Your task to perform on an android device: turn off smart reply in the gmail app Image 0: 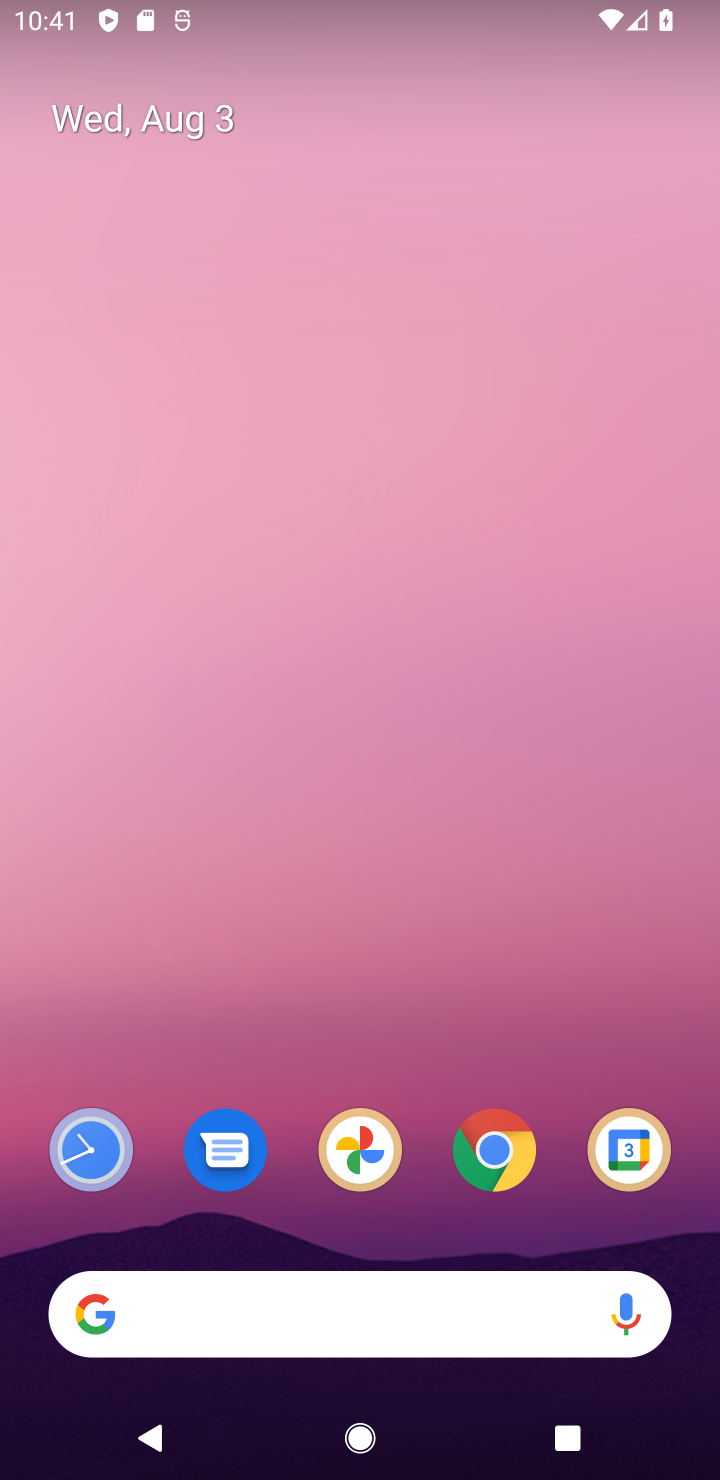
Step 0: press home button
Your task to perform on an android device: turn off smart reply in the gmail app Image 1: 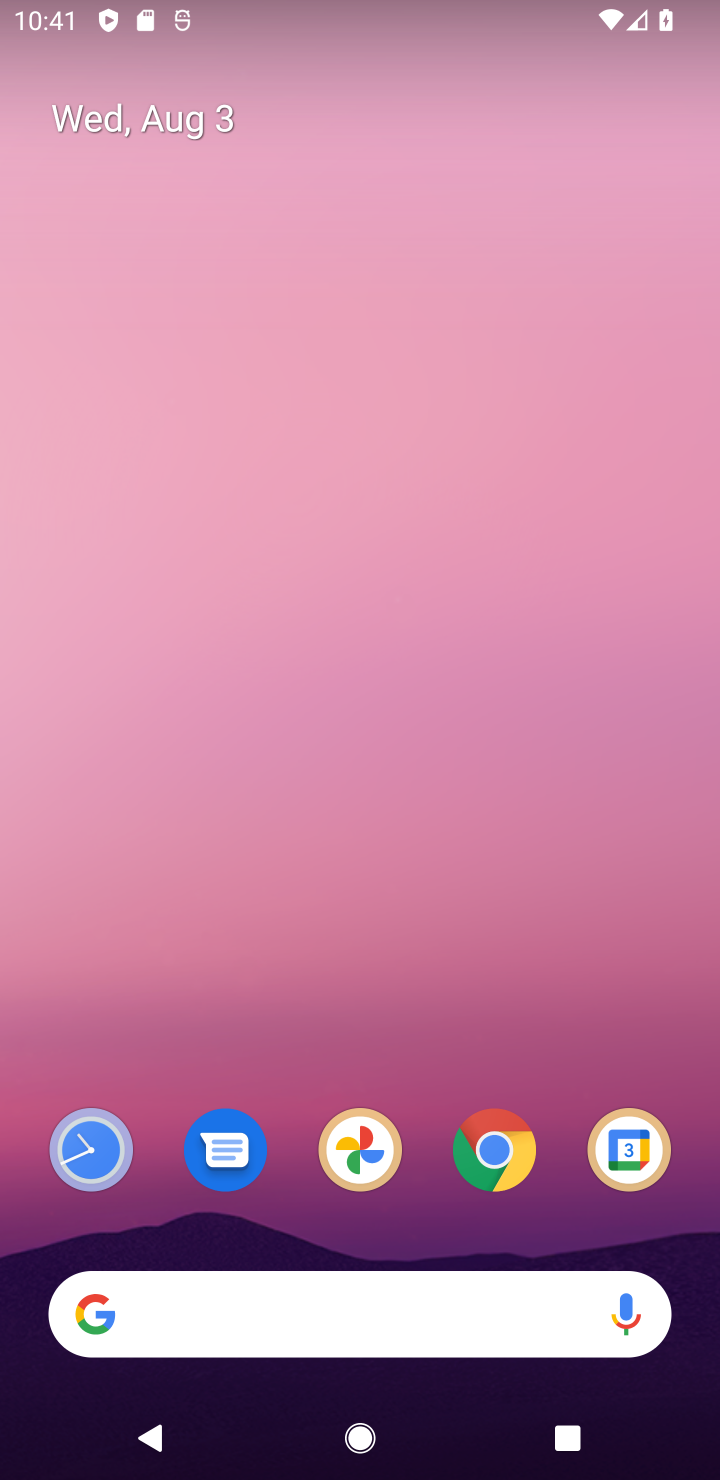
Step 1: drag from (545, 667) to (541, 252)
Your task to perform on an android device: turn off smart reply in the gmail app Image 2: 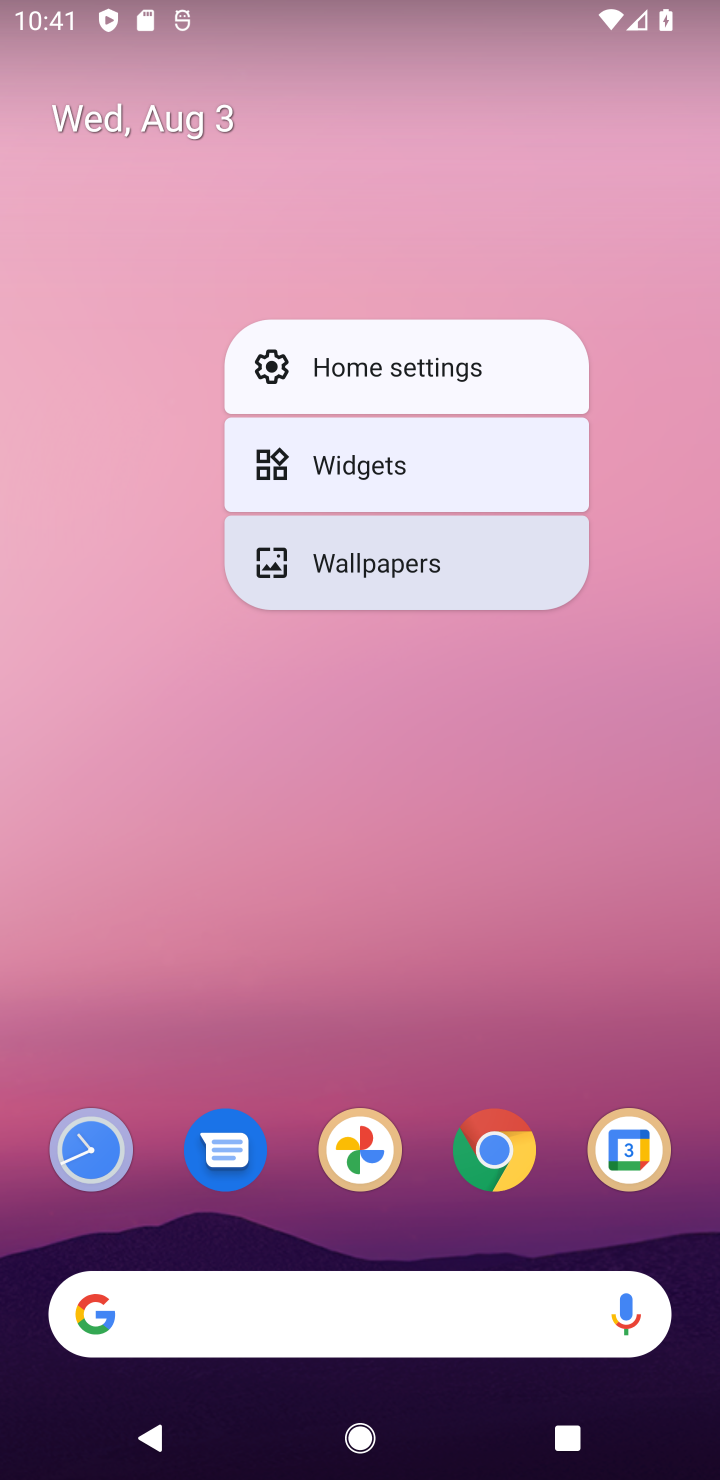
Step 2: drag from (575, 912) to (620, 266)
Your task to perform on an android device: turn off smart reply in the gmail app Image 3: 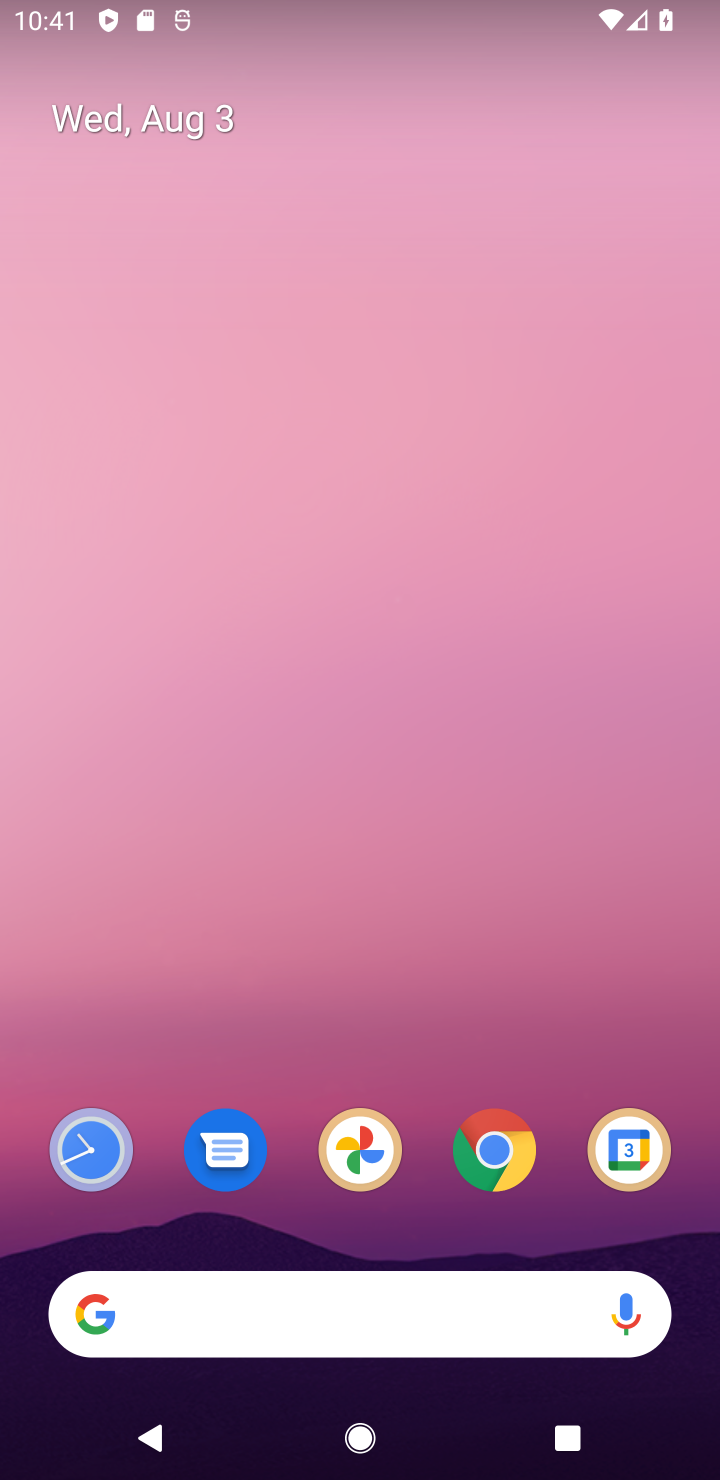
Step 3: drag from (551, 1069) to (572, 157)
Your task to perform on an android device: turn off smart reply in the gmail app Image 4: 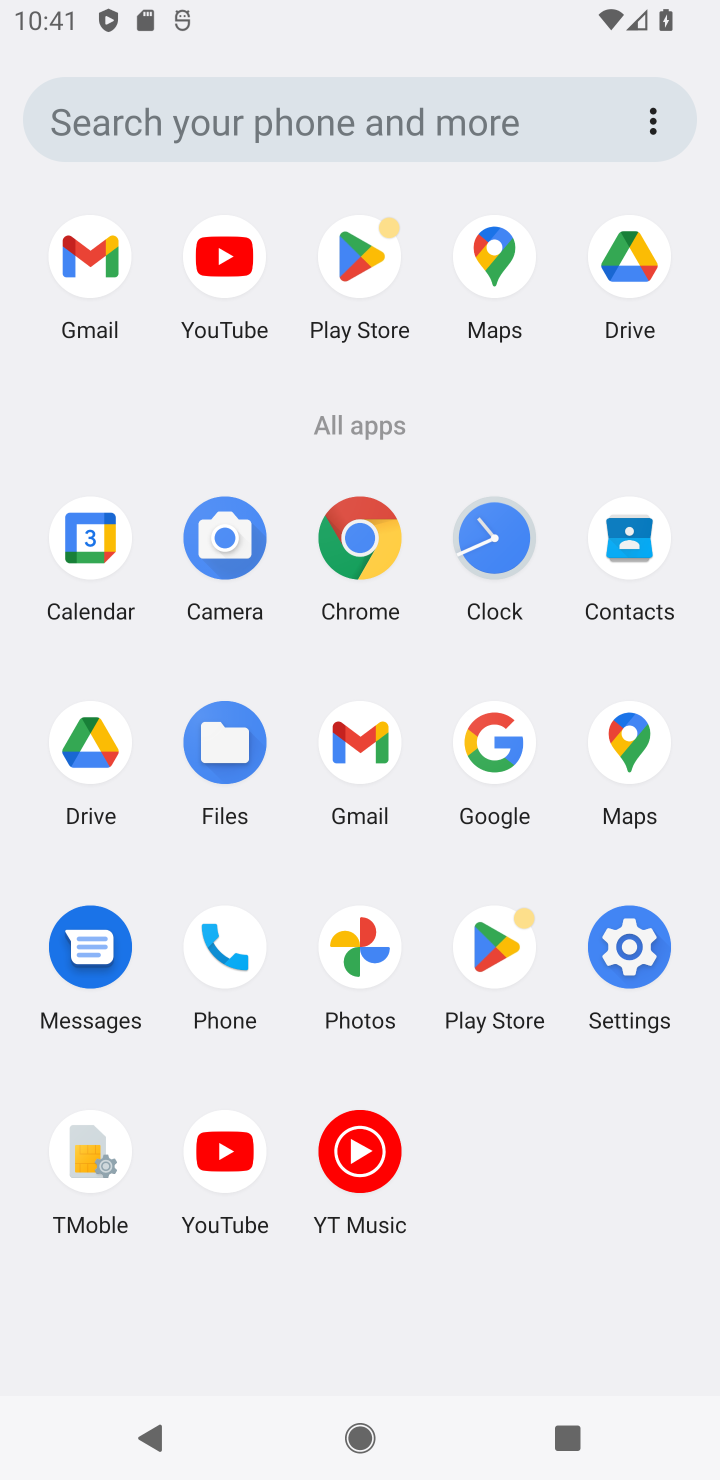
Step 4: click (350, 739)
Your task to perform on an android device: turn off smart reply in the gmail app Image 5: 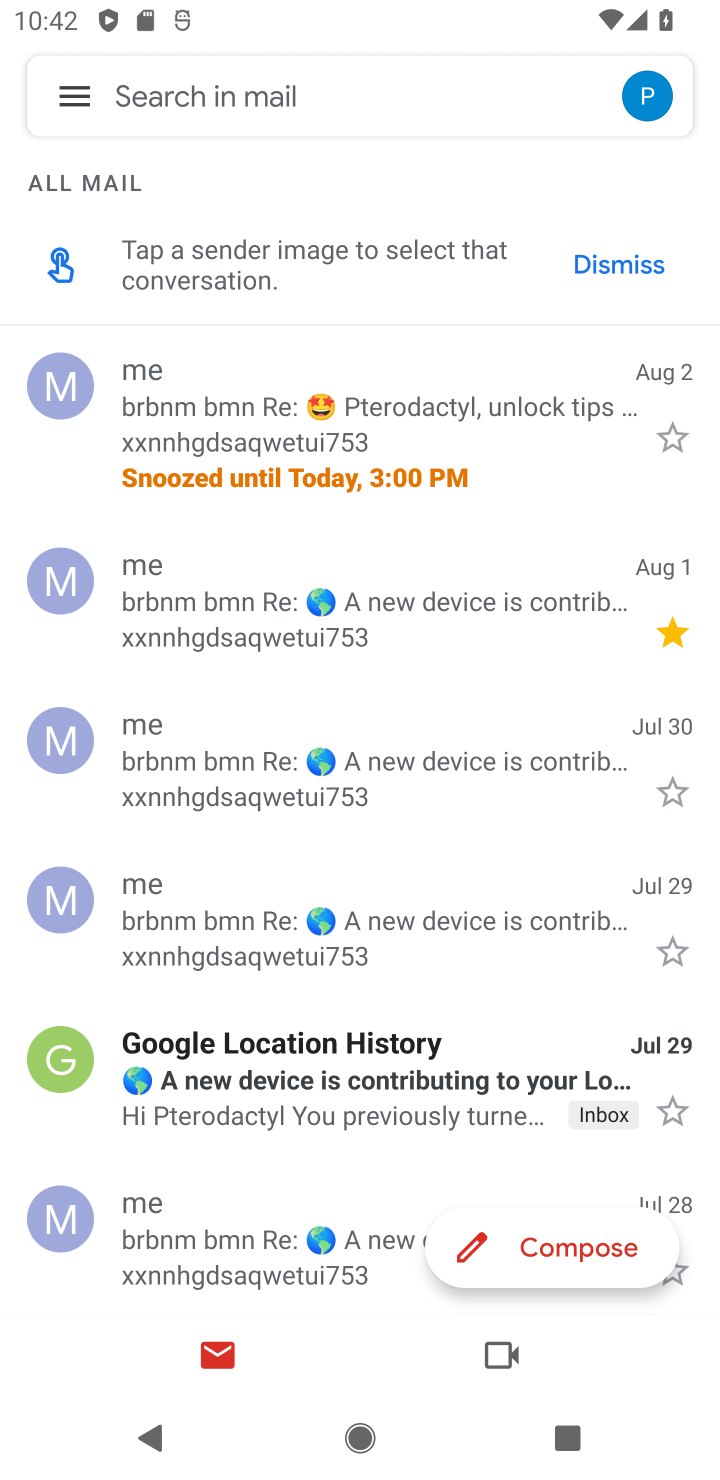
Step 5: click (76, 95)
Your task to perform on an android device: turn off smart reply in the gmail app Image 6: 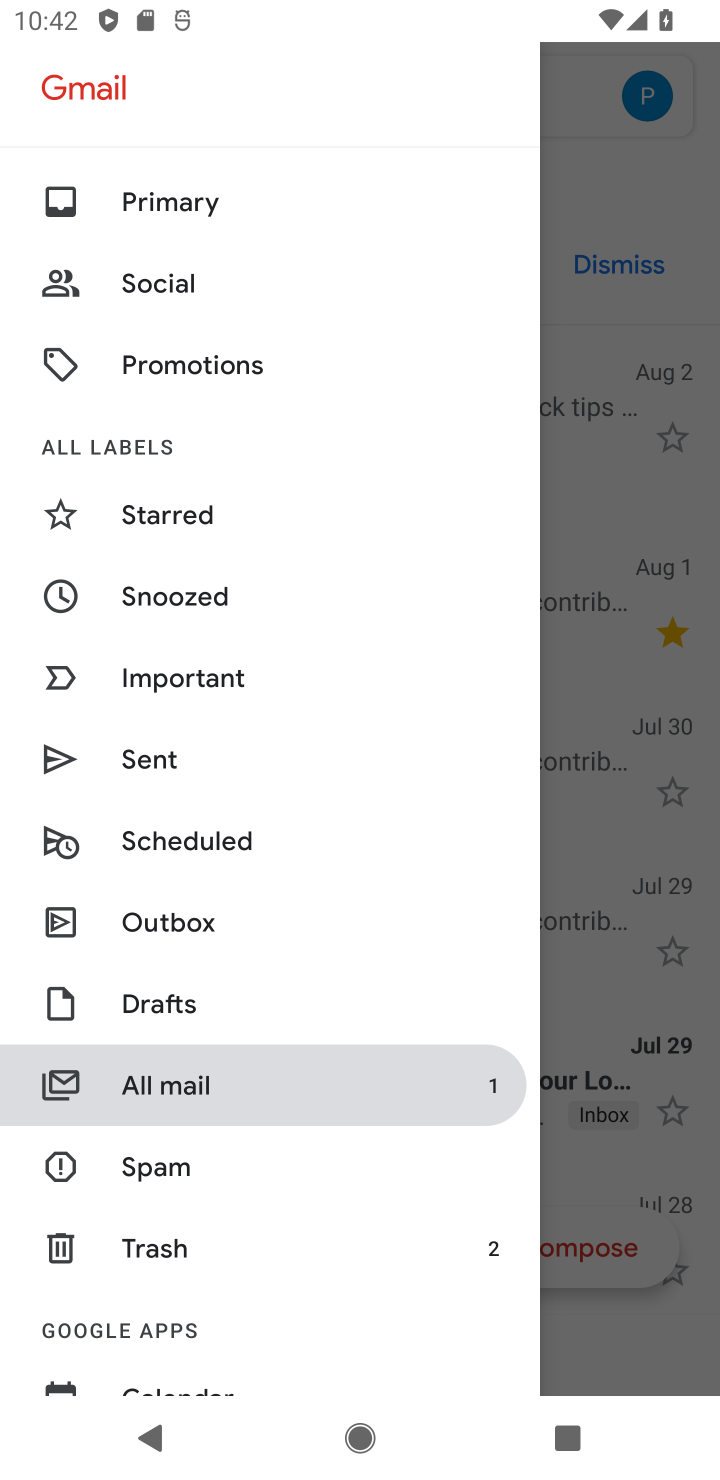
Step 6: drag from (413, 1215) to (441, 883)
Your task to perform on an android device: turn off smart reply in the gmail app Image 7: 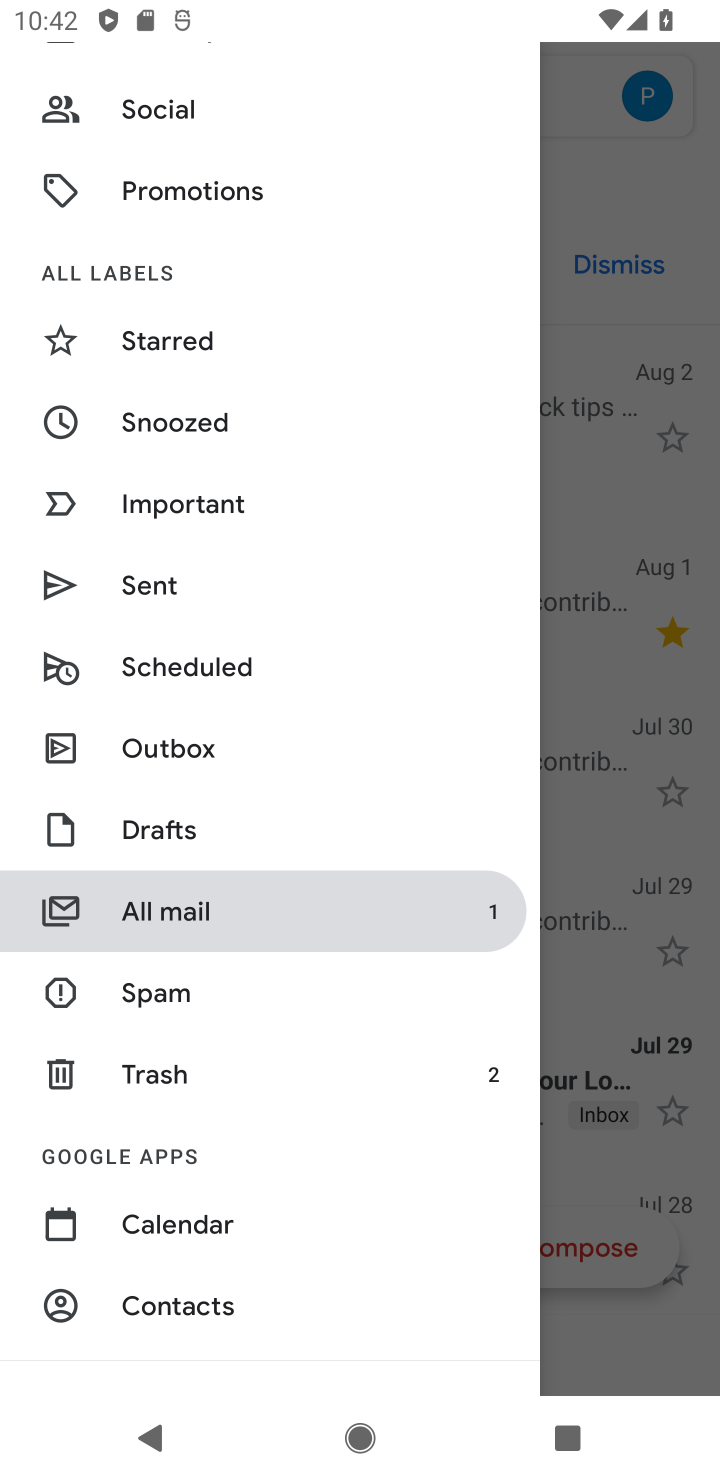
Step 7: drag from (351, 1177) to (394, 788)
Your task to perform on an android device: turn off smart reply in the gmail app Image 8: 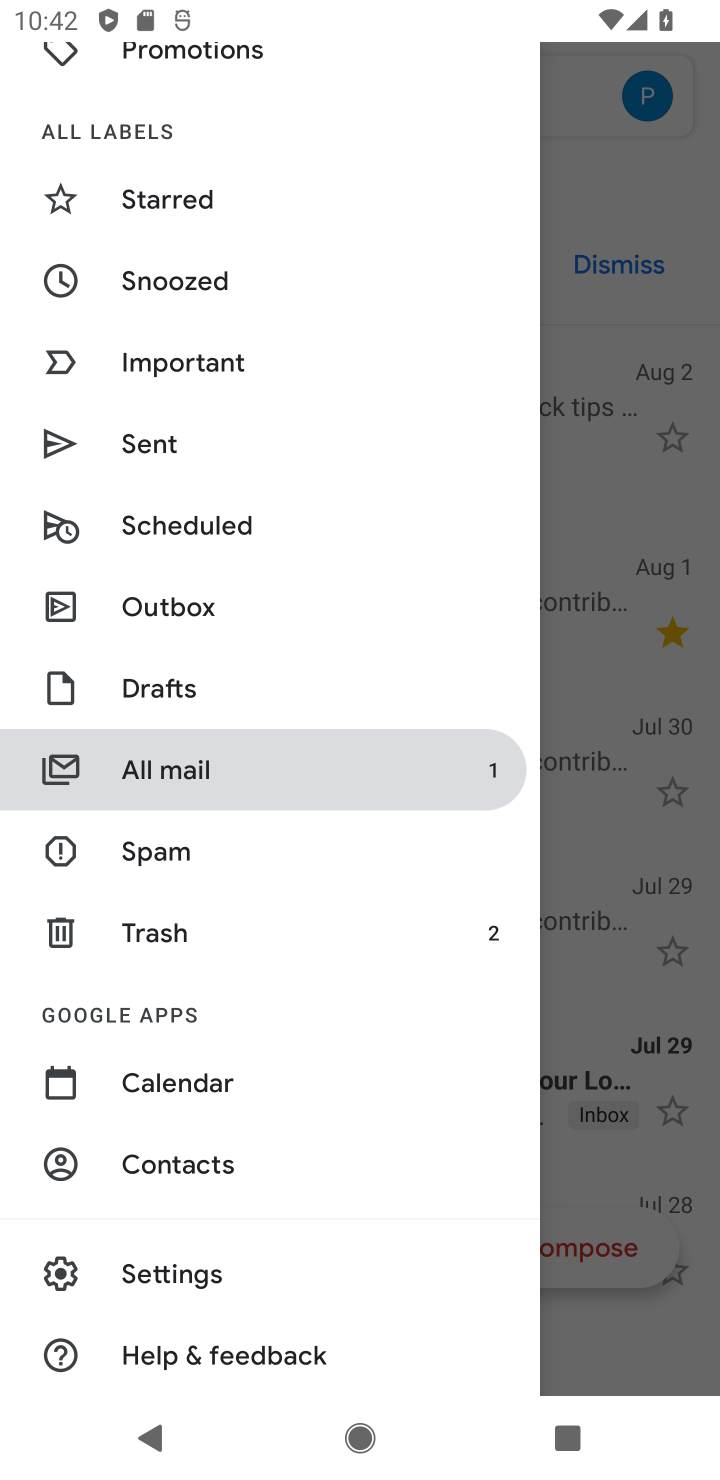
Step 8: click (198, 1271)
Your task to perform on an android device: turn off smart reply in the gmail app Image 9: 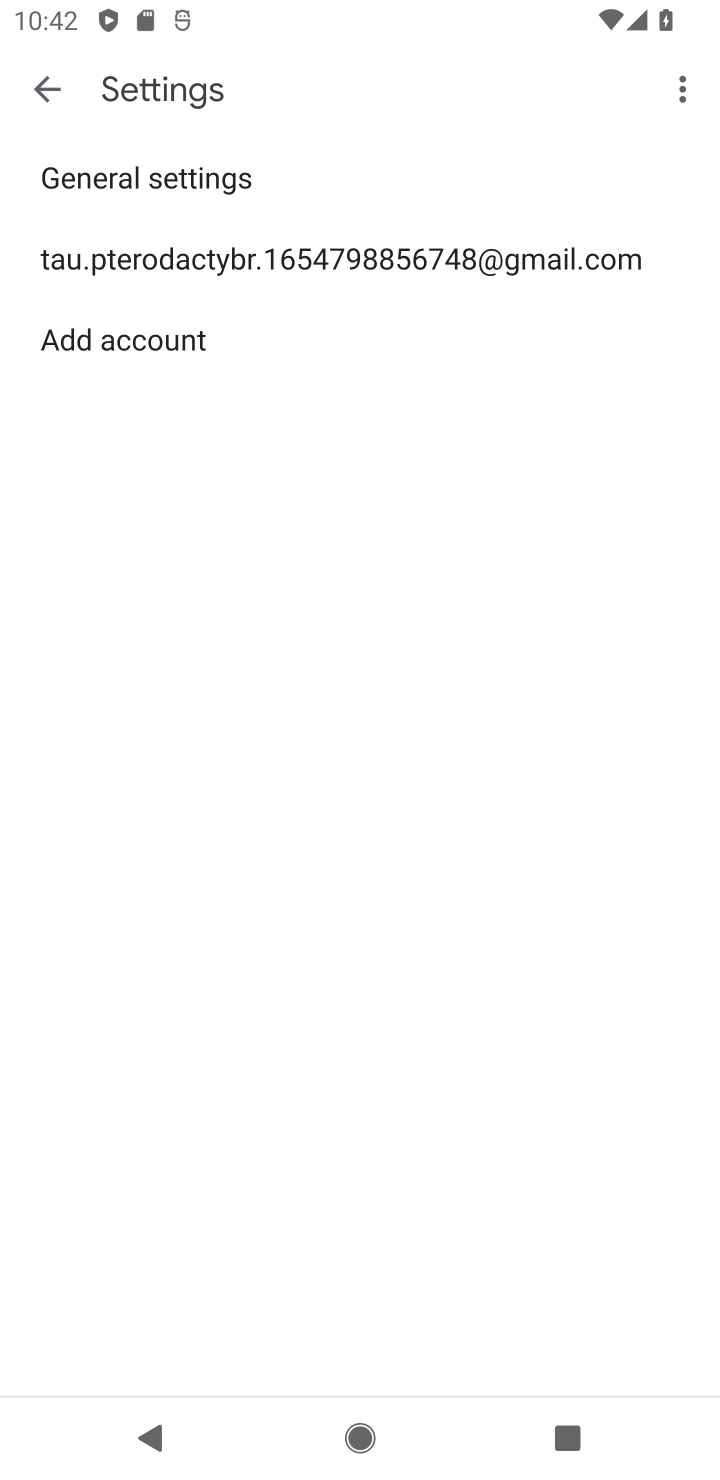
Step 9: click (336, 262)
Your task to perform on an android device: turn off smart reply in the gmail app Image 10: 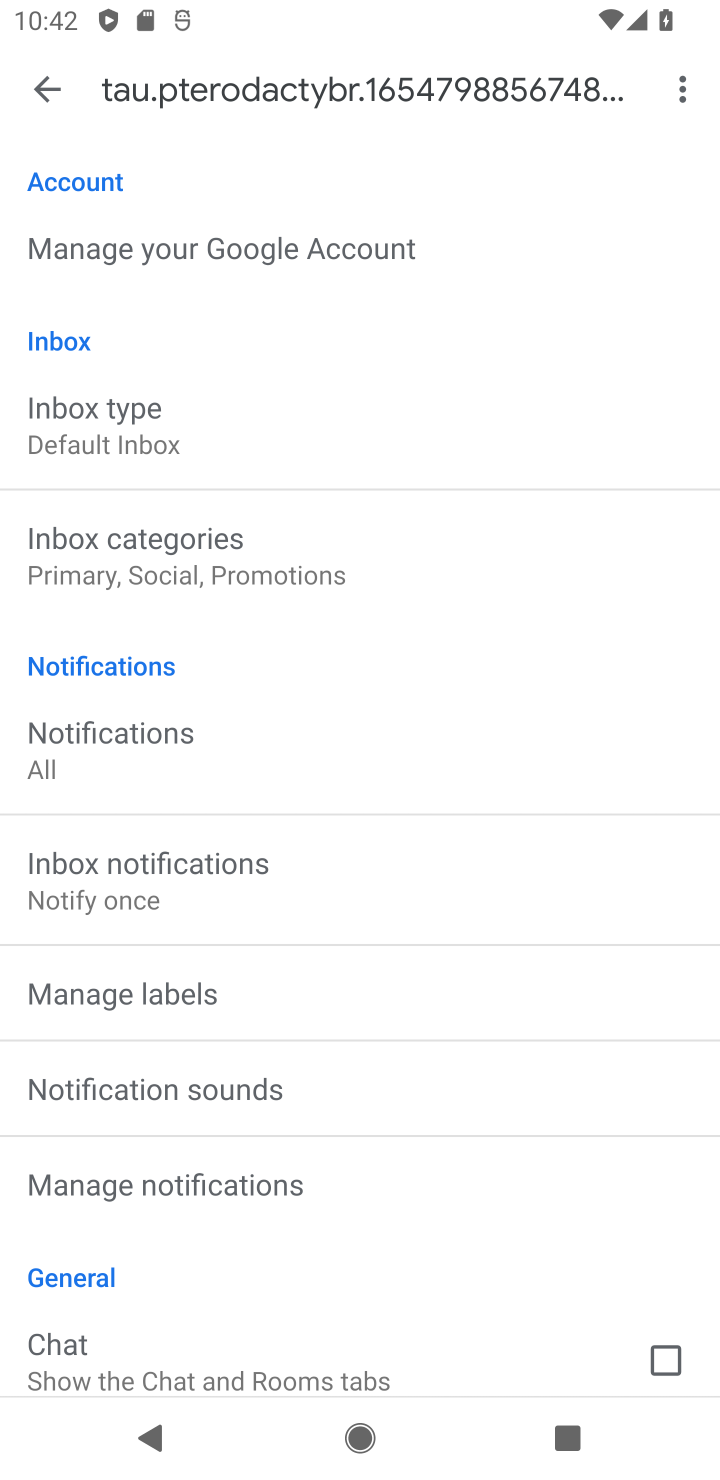
Step 10: drag from (511, 865) to (544, 530)
Your task to perform on an android device: turn off smart reply in the gmail app Image 11: 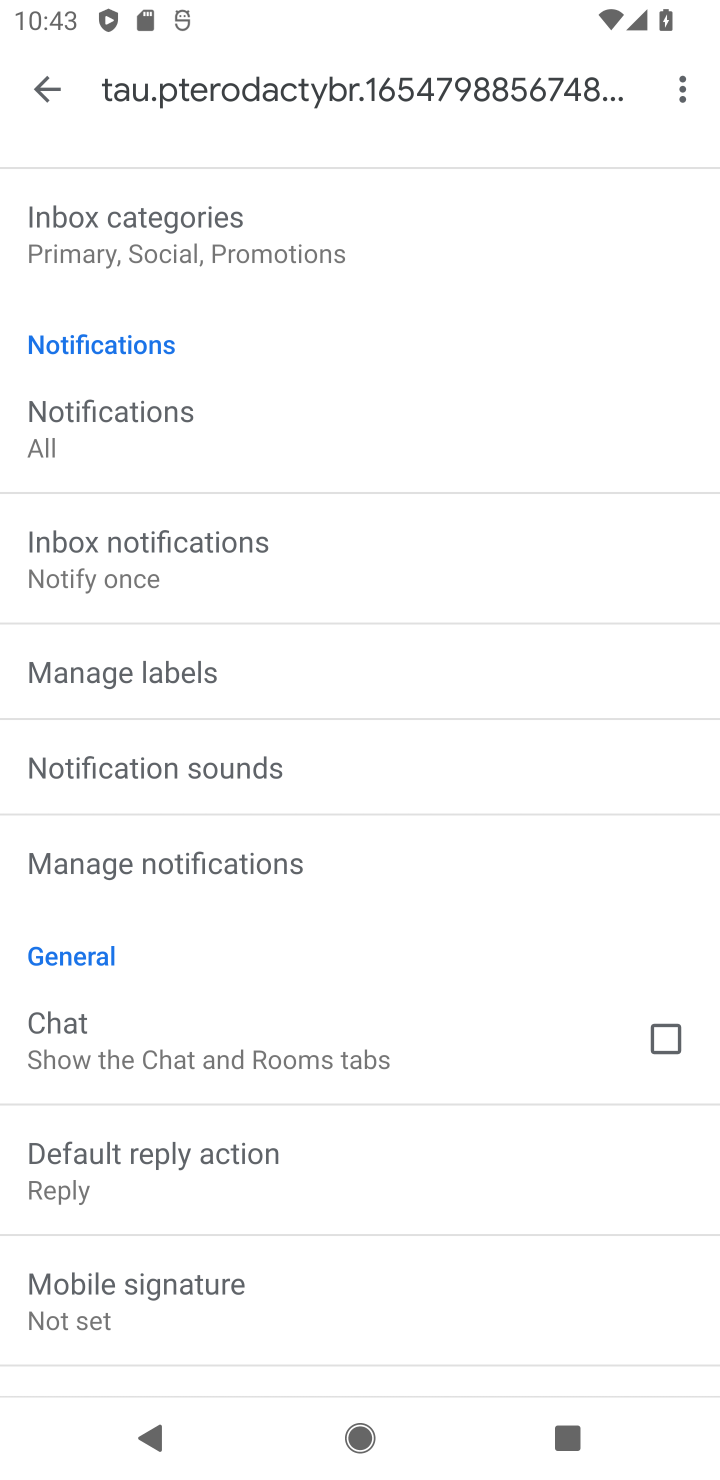
Step 11: drag from (371, 826) to (406, 613)
Your task to perform on an android device: turn off smart reply in the gmail app Image 12: 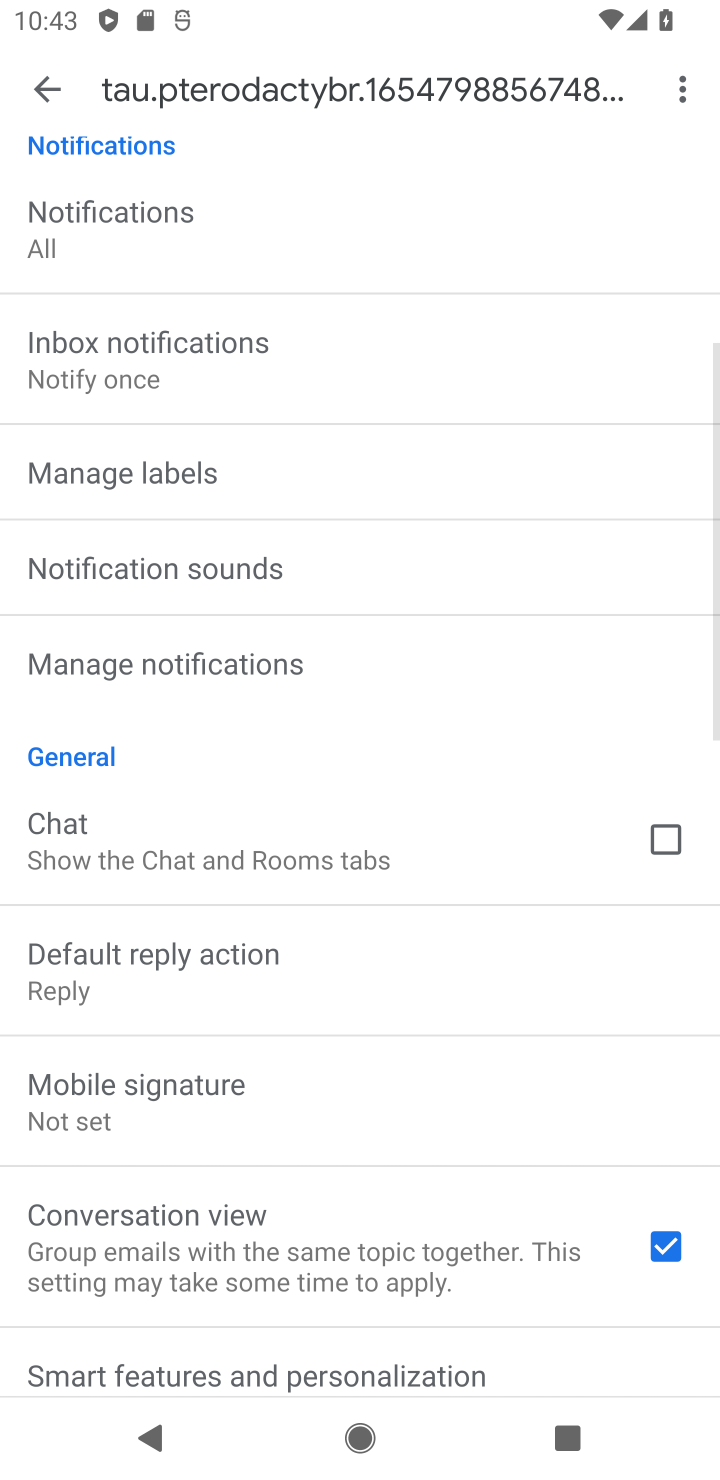
Step 12: drag from (436, 821) to (400, 577)
Your task to perform on an android device: turn off smart reply in the gmail app Image 13: 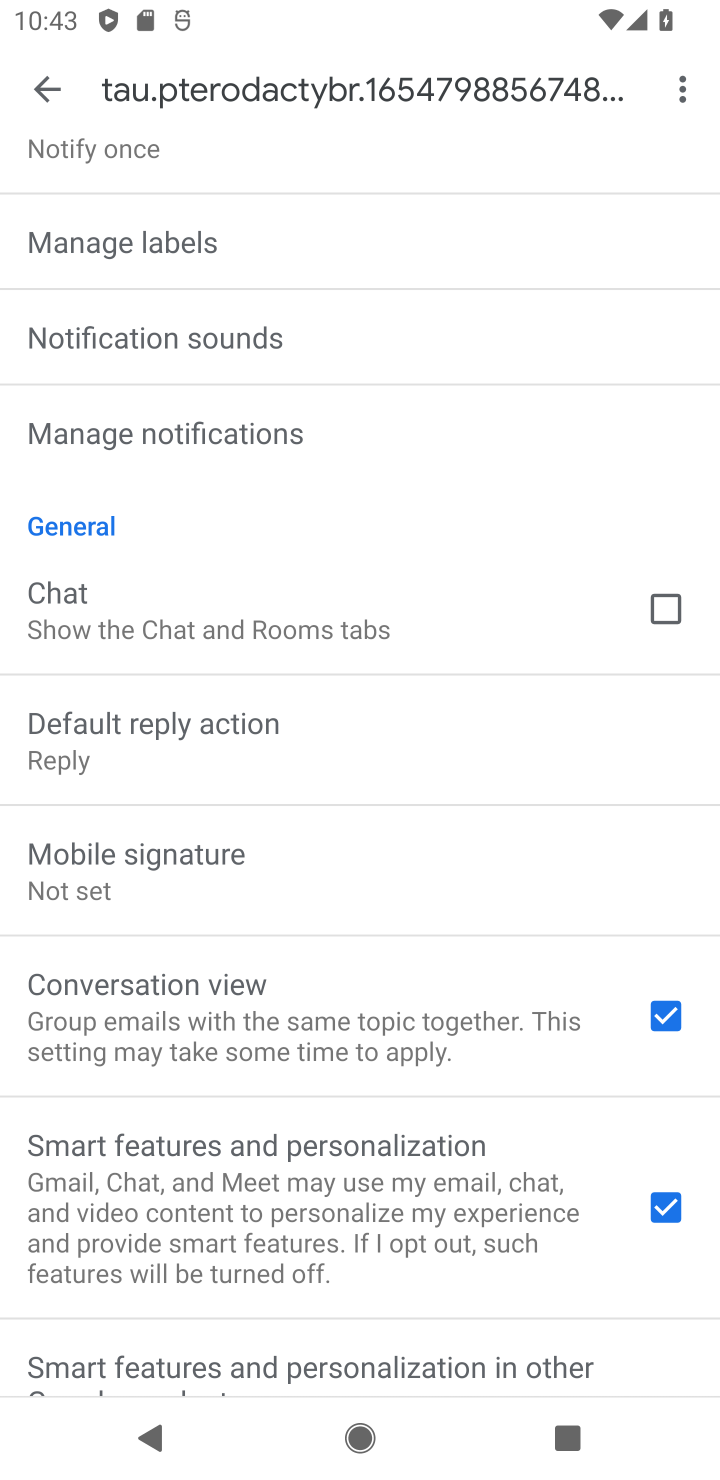
Step 13: drag from (349, 867) to (349, 654)
Your task to perform on an android device: turn off smart reply in the gmail app Image 14: 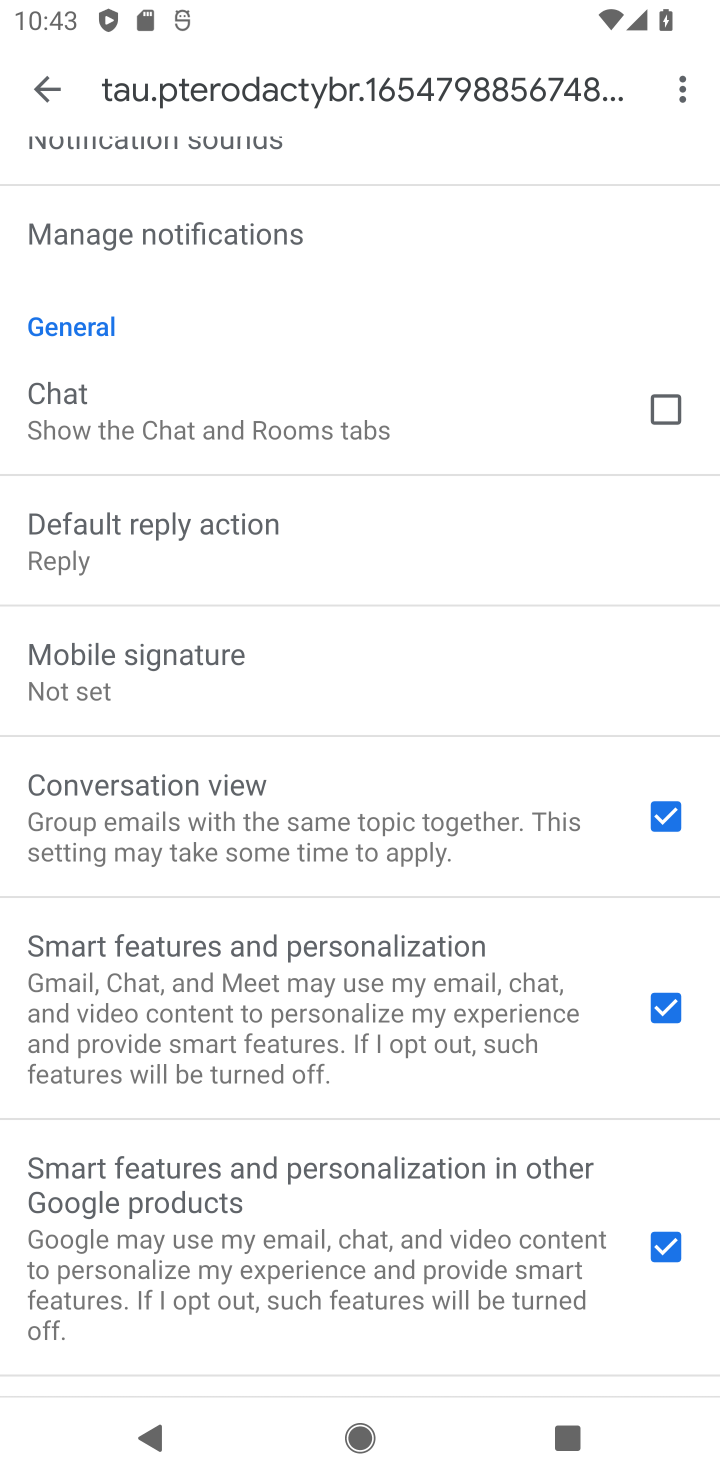
Step 14: drag from (467, 382) to (476, 905)
Your task to perform on an android device: turn off smart reply in the gmail app Image 15: 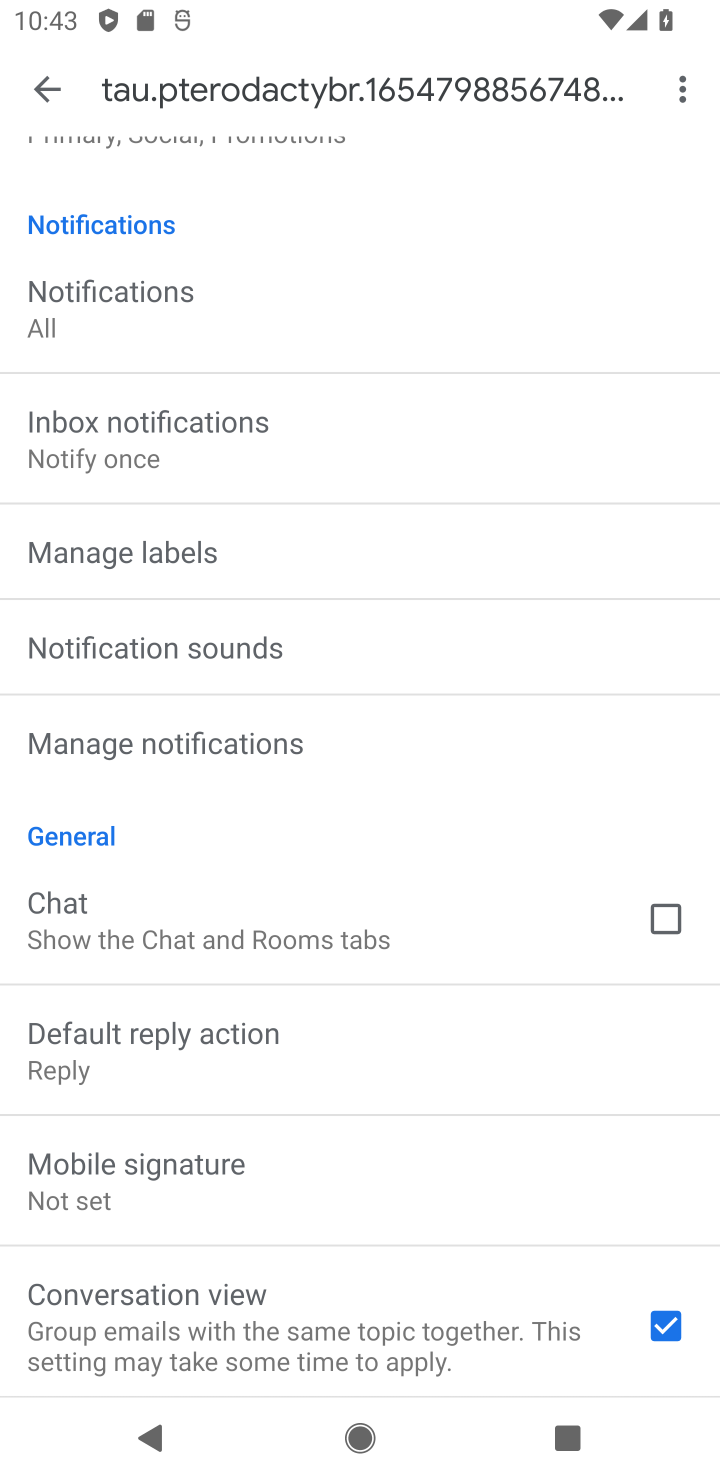
Step 15: click (341, 752)
Your task to perform on an android device: turn off smart reply in the gmail app Image 16: 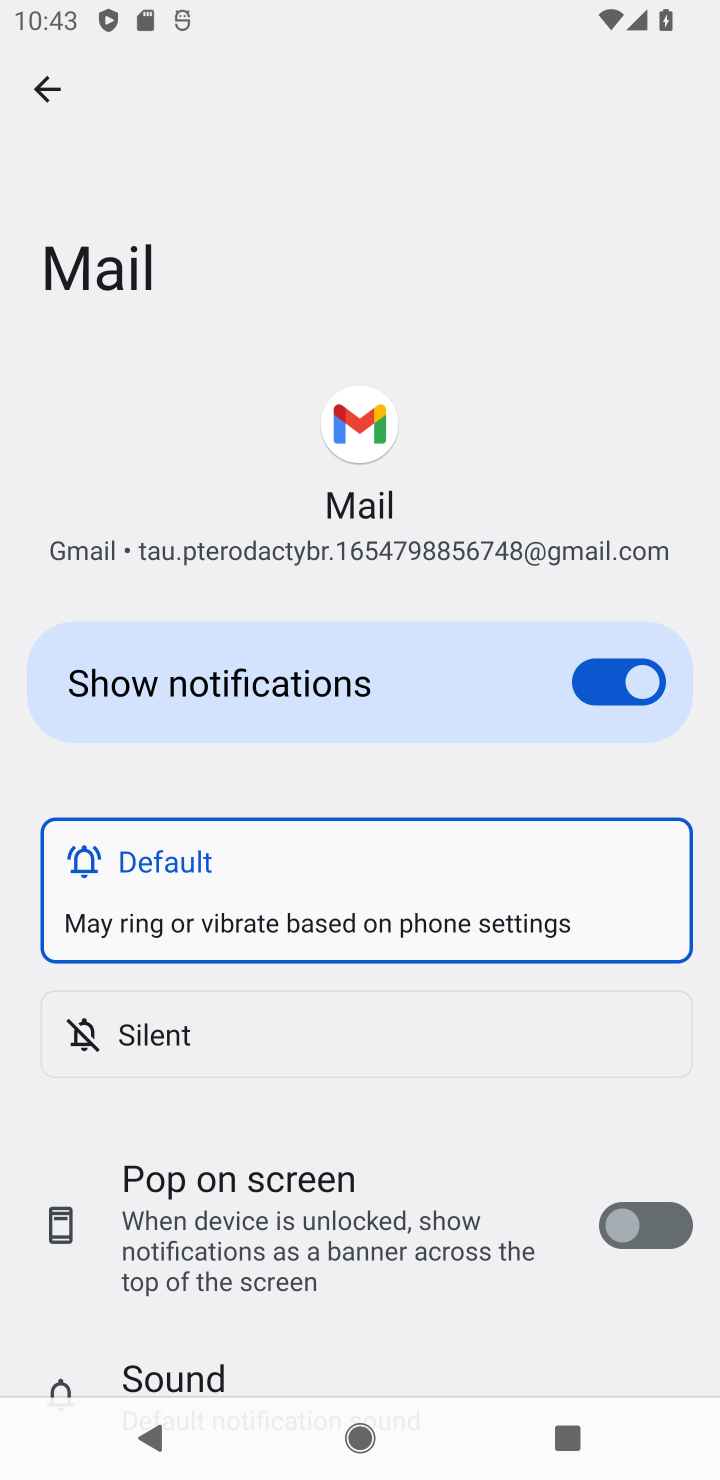
Step 16: click (45, 103)
Your task to perform on an android device: turn off smart reply in the gmail app Image 17: 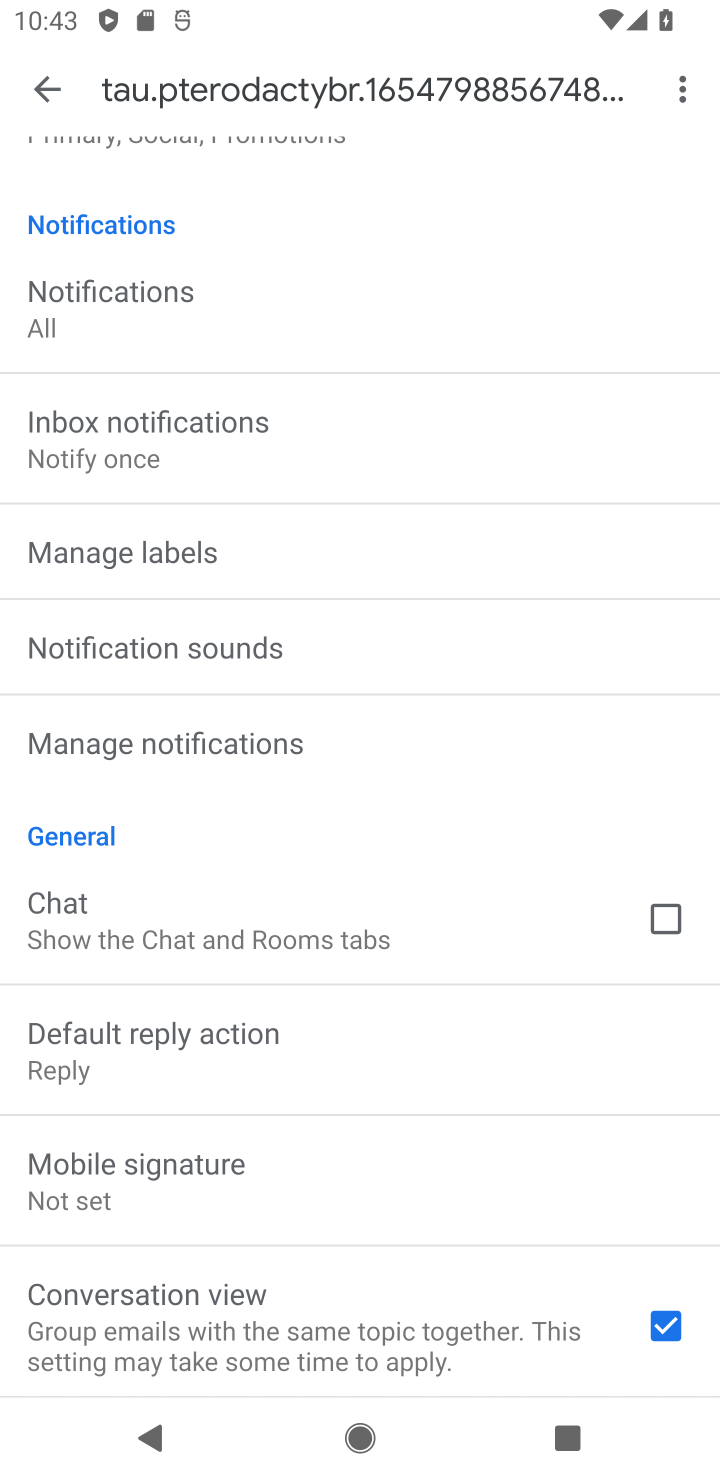
Step 17: drag from (363, 1066) to (374, 753)
Your task to perform on an android device: turn off smart reply in the gmail app Image 18: 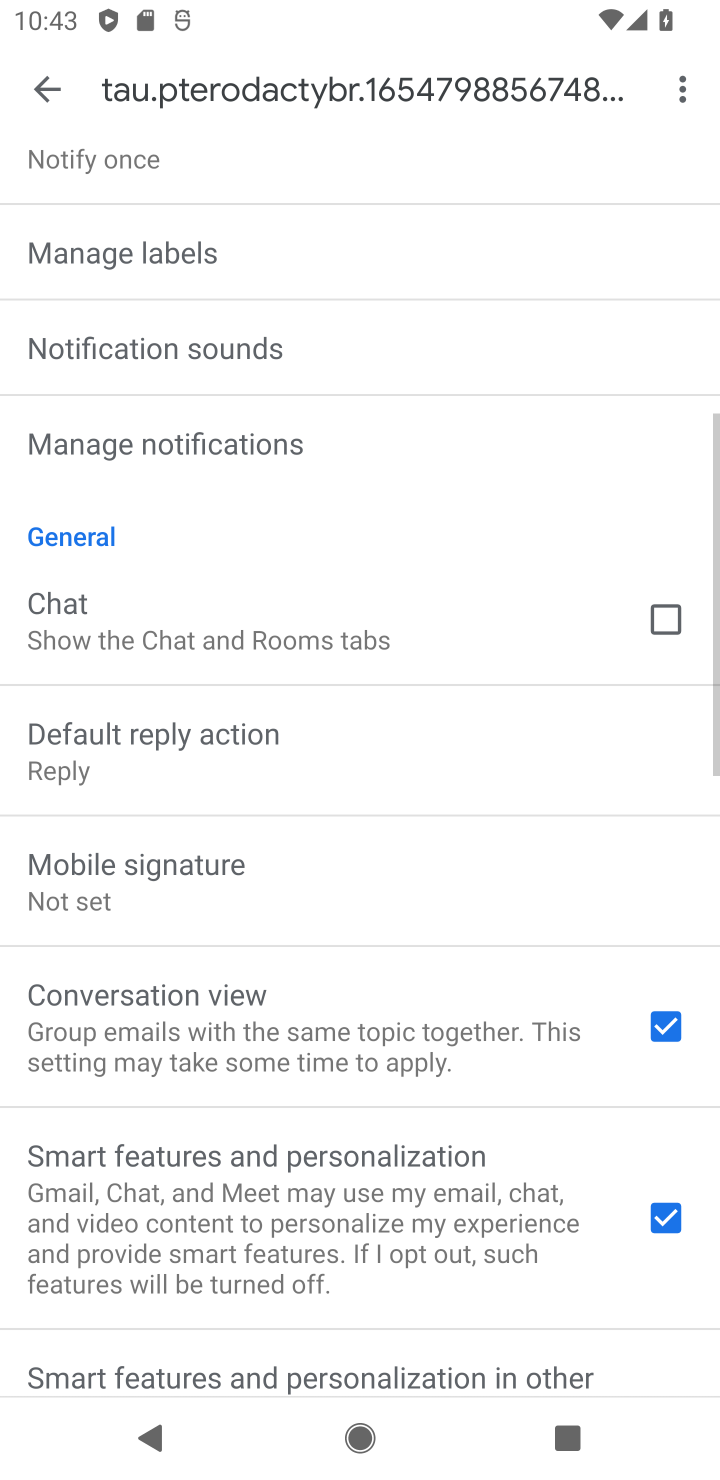
Step 18: drag from (433, 1265) to (447, 794)
Your task to perform on an android device: turn off smart reply in the gmail app Image 19: 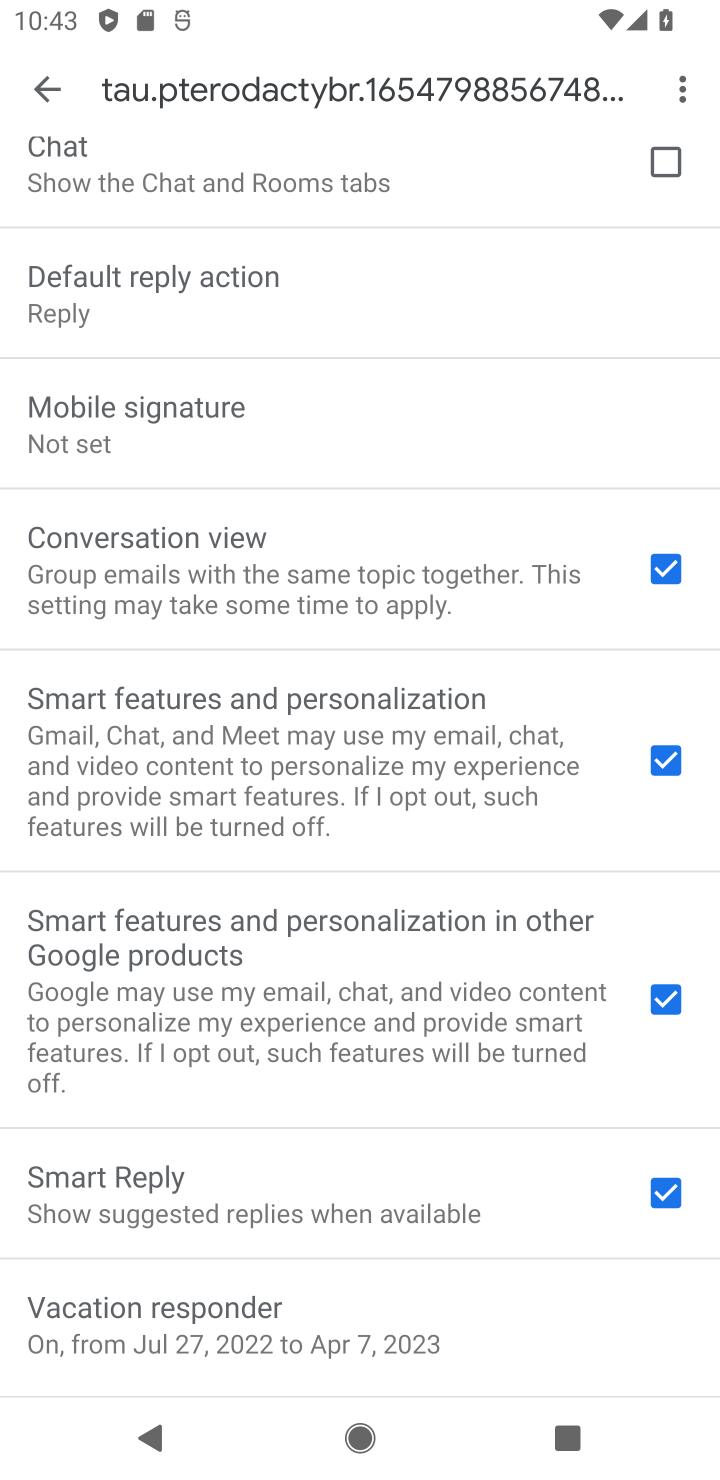
Step 19: click (666, 1182)
Your task to perform on an android device: turn off smart reply in the gmail app Image 20: 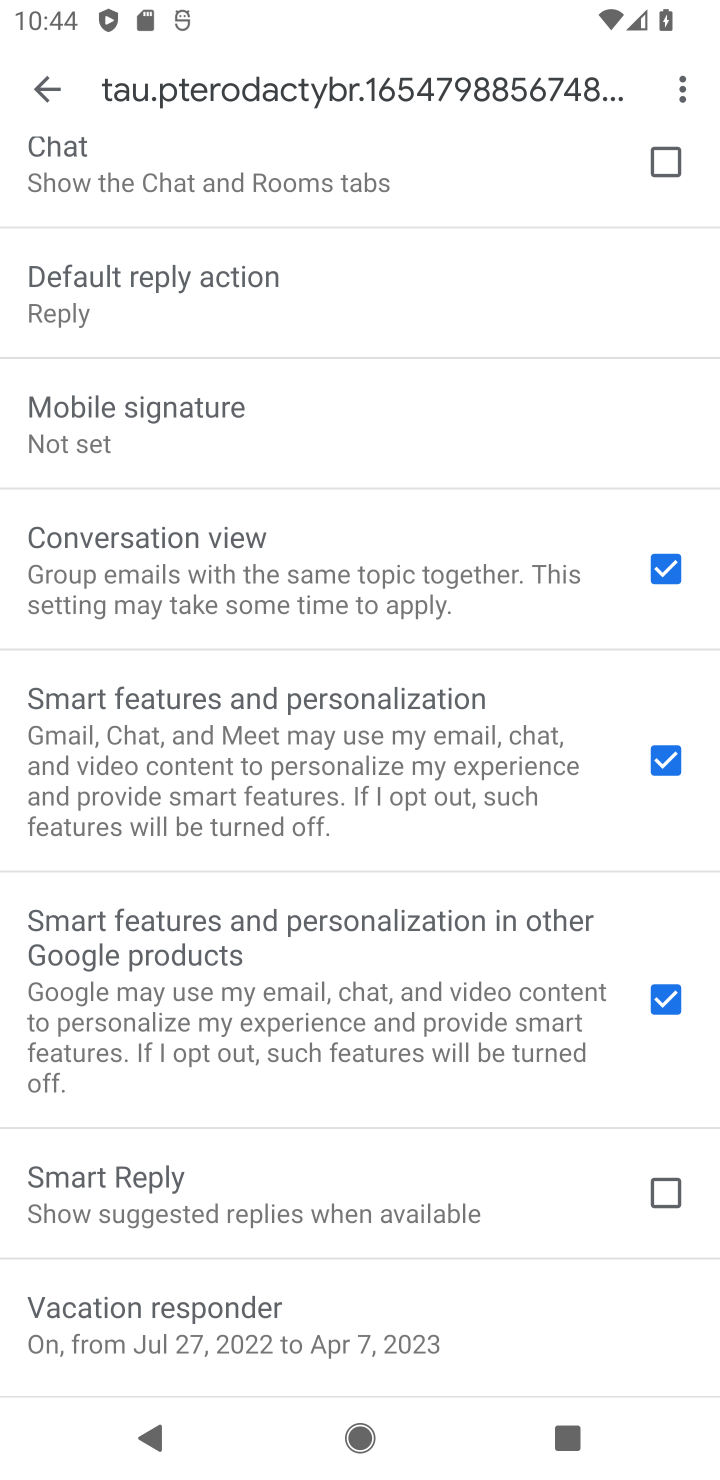
Step 20: task complete